Your task to perform on an android device: turn vacation reply on in the gmail app Image 0: 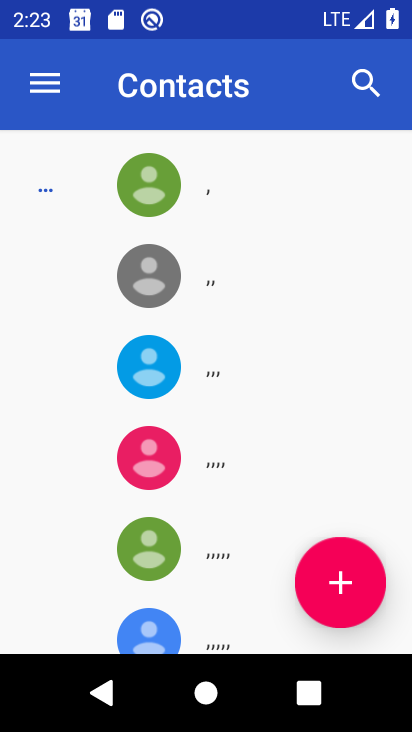
Step 0: press back button
Your task to perform on an android device: turn vacation reply on in the gmail app Image 1: 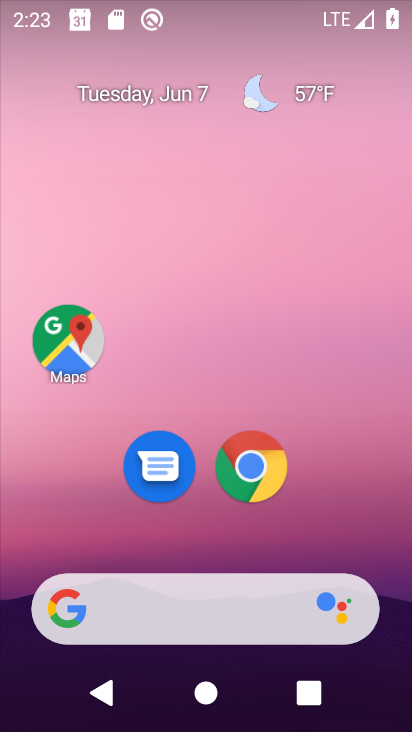
Step 1: drag from (140, 549) to (279, 15)
Your task to perform on an android device: turn vacation reply on in the gmail app Image 2: 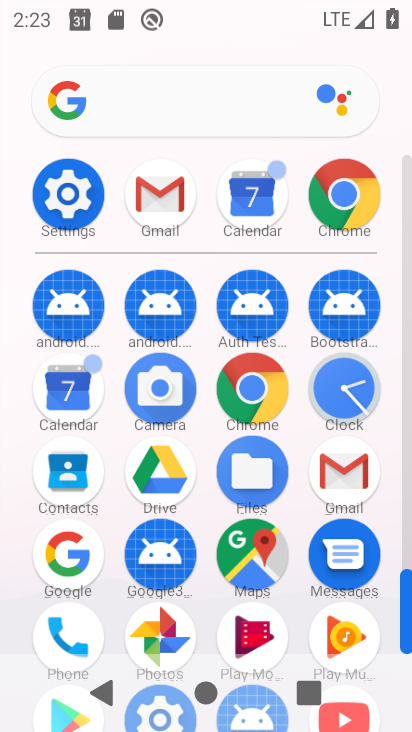
Step 2: click (154, 188)
Your task to perform on an android device: turn vacation reply on in the gmail app Image 3: 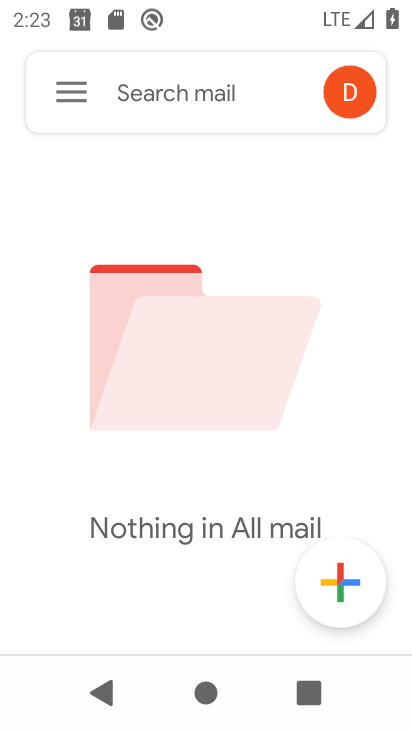
Step 3: click (50, 84)
Your task to perform on an android device: turn vacation reply on in the gmail app Image 4: 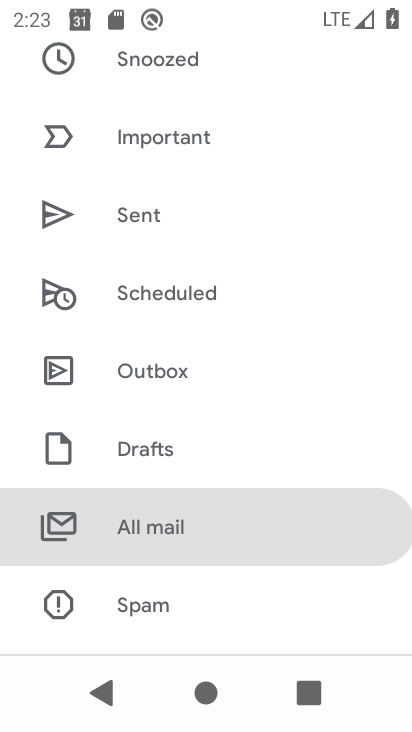
Step 4: drag from (159, 596) to (295, 63)
Your task to perform on an android device: turn vacation reply on in the gmail app Image 5: 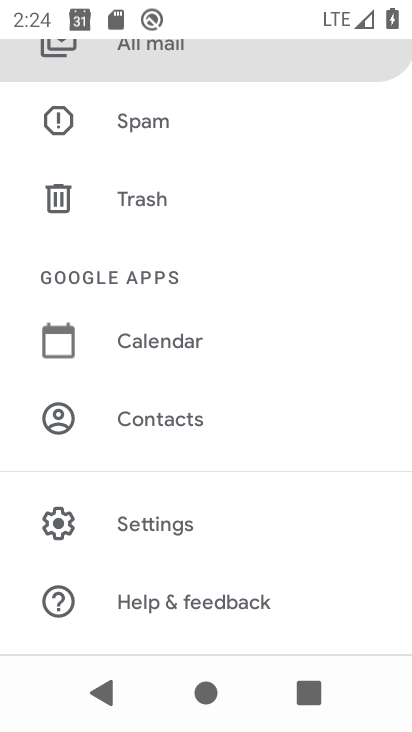
Step 5: click (153, 532)
Your task to perform on an android device: turn vacation reply on in the gmail app Image 6: 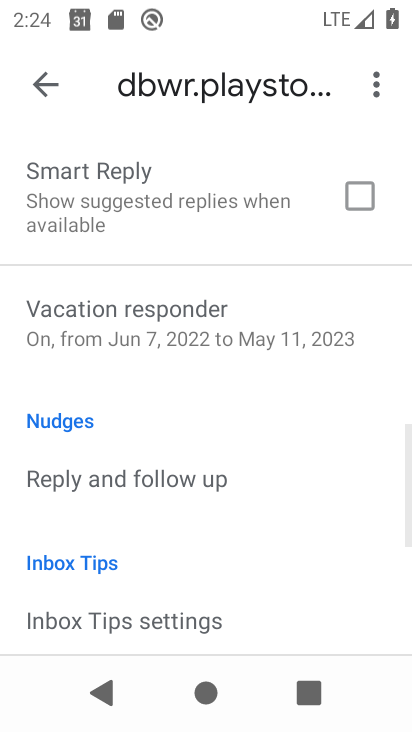
Step 6: click (187, 328)
Your task to perform on an android device: turn vacation reply on in the gmail app Image 7: 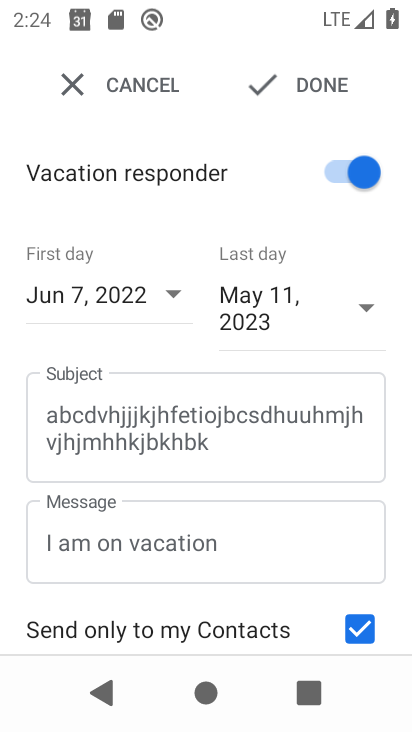
Step 7: task complete